Your task to perform on an android device: turn pop-ups off in chrome Image 0: 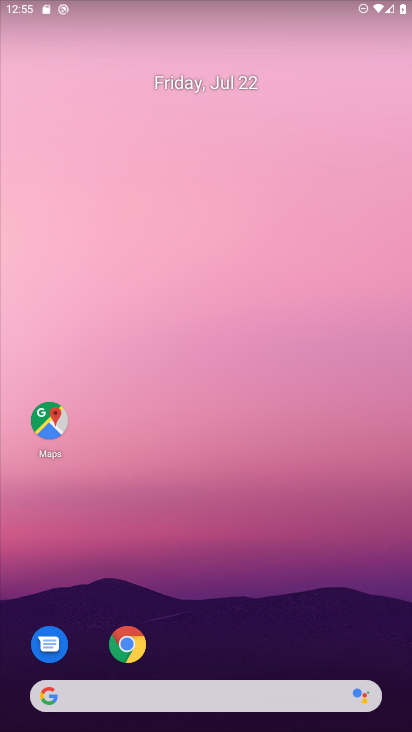
Step 0: click (130, 652)
Your task to perform on an android device: turn pop-ups off in chrome Image 1: 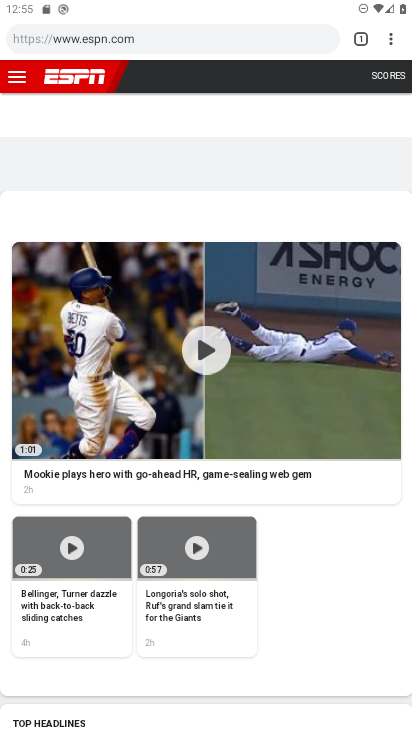
Step 1: click (397, 37)
Your task to perform on an android device: turn pop-ups off in chrome Image 2: 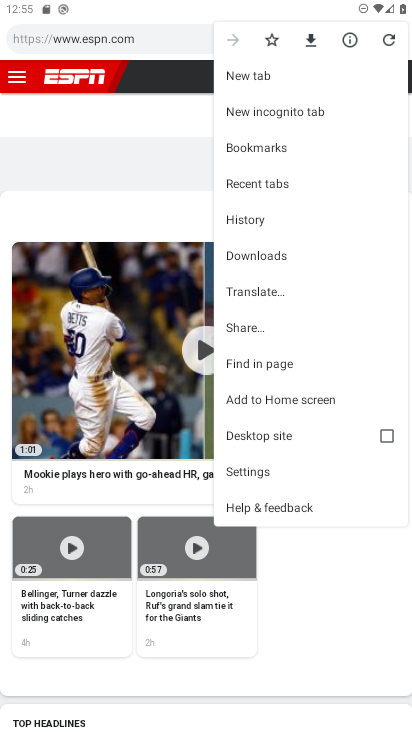
Step 2: click (261, 478)
Your task to perform on an android device: turn pop-ups off in chrome Image 3: 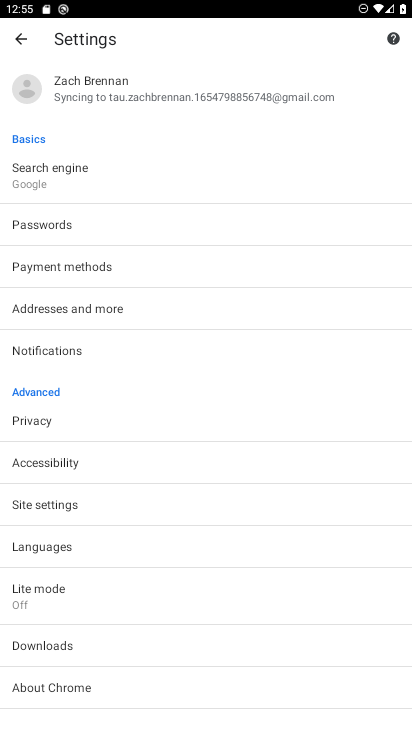
Step 3: click (104, 515)
Your task to perform on an android device: turn pop-ups off in chrome Image 4: 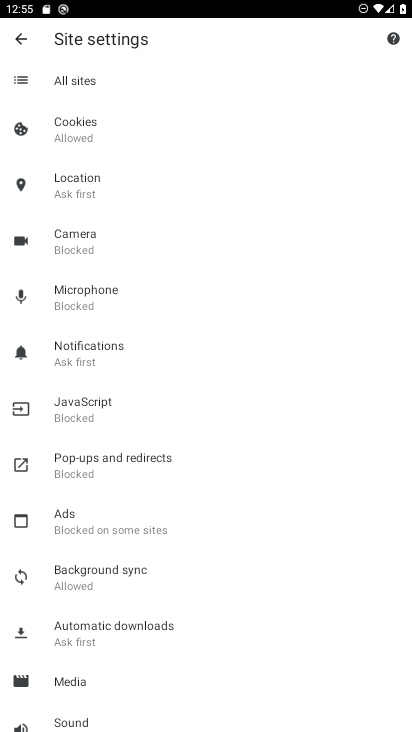
Step 4: click (84, 488)
Your task to perform on an android device: turn pop-ups off in chrome Image 5: 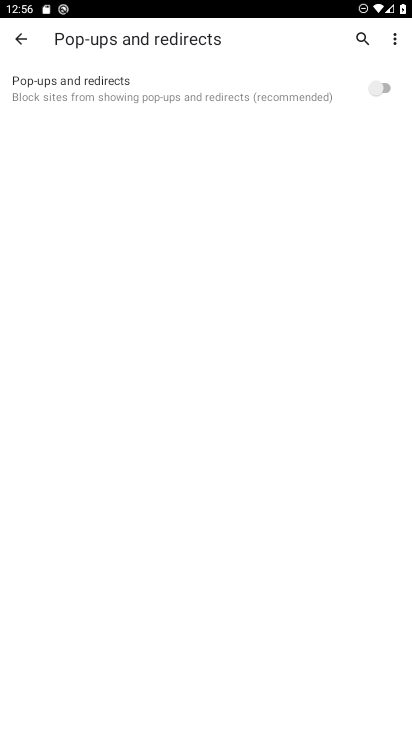
Step 5: task complete